Your task to perform on an android device: Search for sushi restaurants on Maps Image 0: 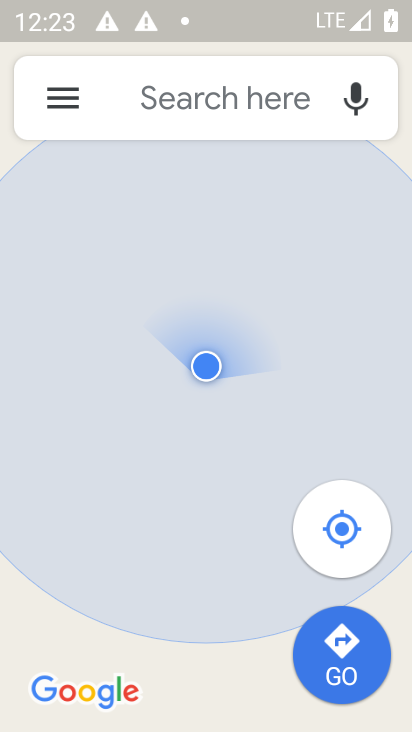
Step 0: click (174, 107)
Your task to perform on an android device: Search for sushi restaurants on Maps Image 1: 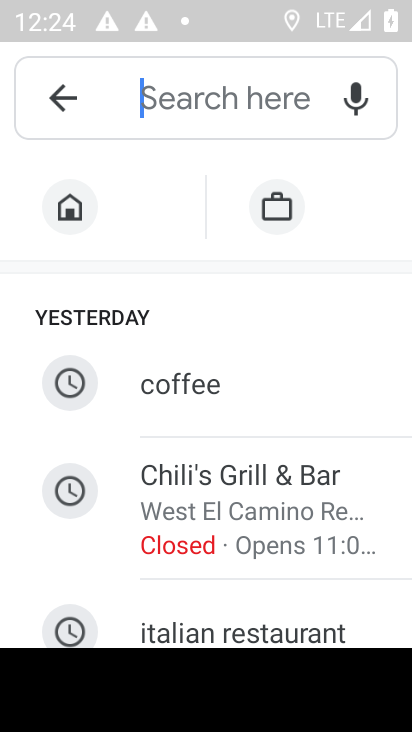
Step 1: drag from (199, 628) to (202, 388)
Your task to perform on an android device: Search for sushi restaurants on Maps Image 2: 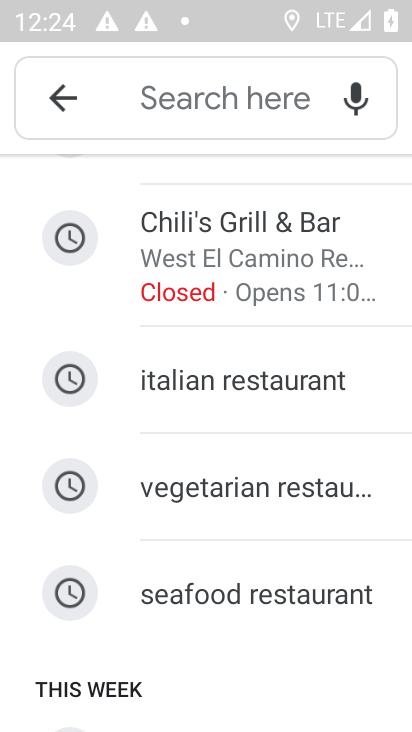
Step 2: drag from (192, 653) to (198, 419)
Your task to perform on an android device: Search for sushi restaurants on Maps Image 3: 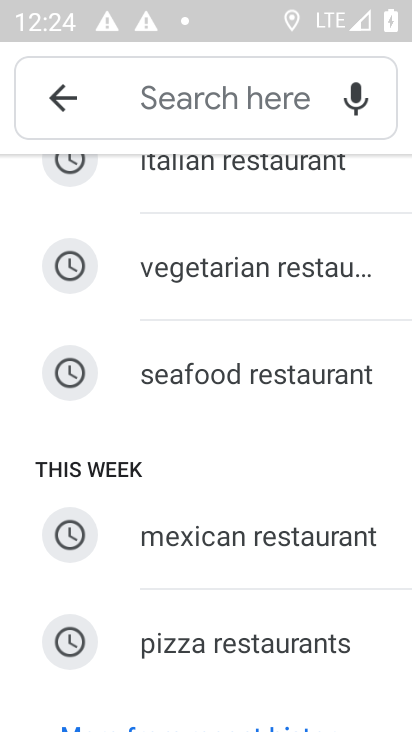
Step 3: drag from (187, 663) to (187, 443)
Your task to perform on an android device: Search for sushi restaurants on Maps Image 4: 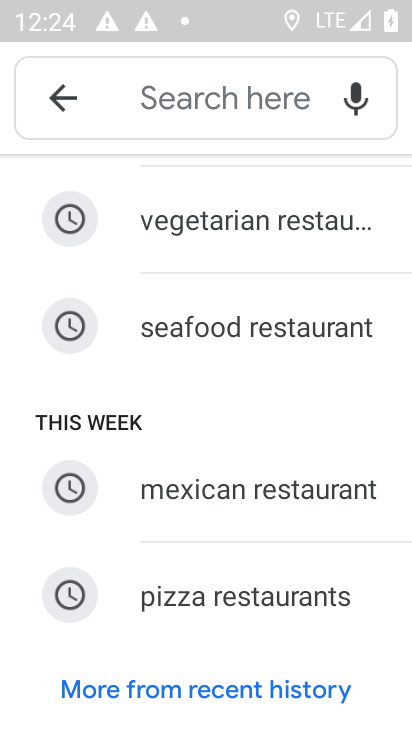
Step 4: click (187, 99)
Your task to perform on an android device: Search for sushi restaurants on Maps Image 5: 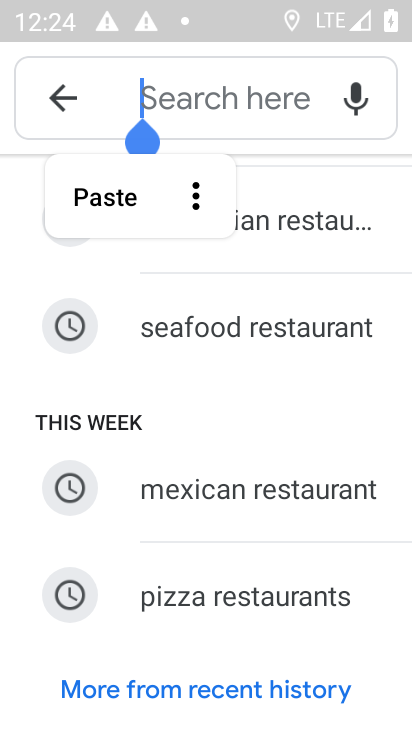
Step 5: type "sushi restaurants"
Your task to perform on an android device: Search for sushi restaurants on Maps Image 6: 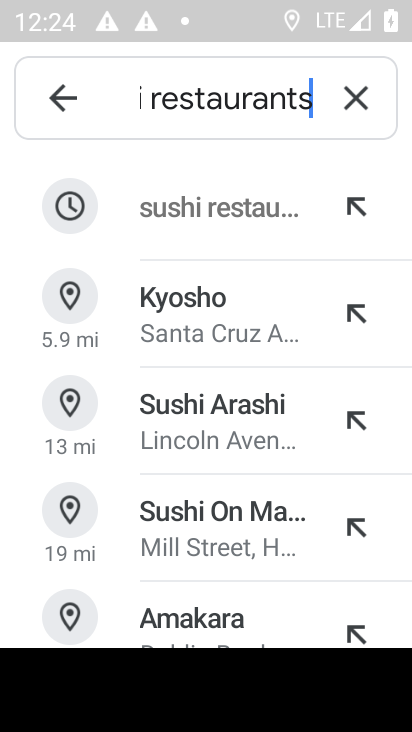
Step 6: click (195, 216)
Your task to perform on an android device: Search for sushi restaurants on Maps Image 7: 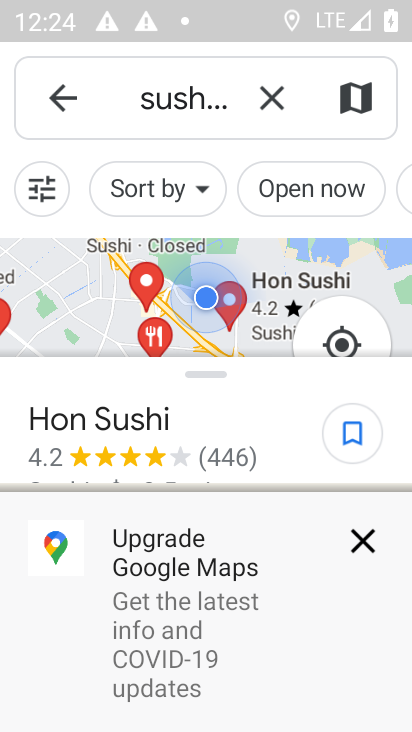
Step 7: task complete